Your task to perform on an android device: Open calendar and show me the first week of next month Image 0: 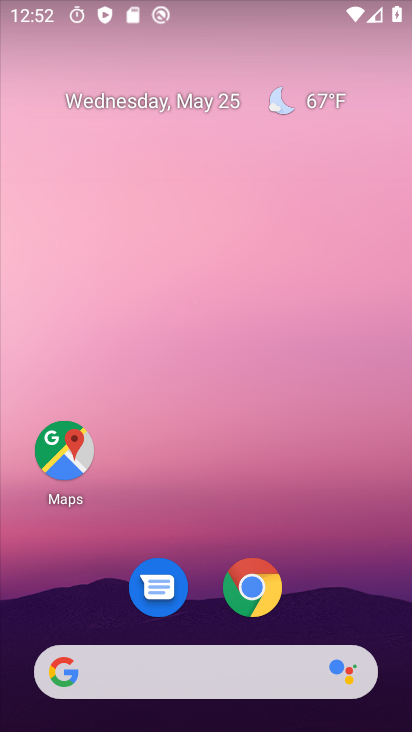
Step 0: drag from (209, 688) to (204, 13)
Your task to perform on an android device: Open calendar and show me the first week of next month Image 1: 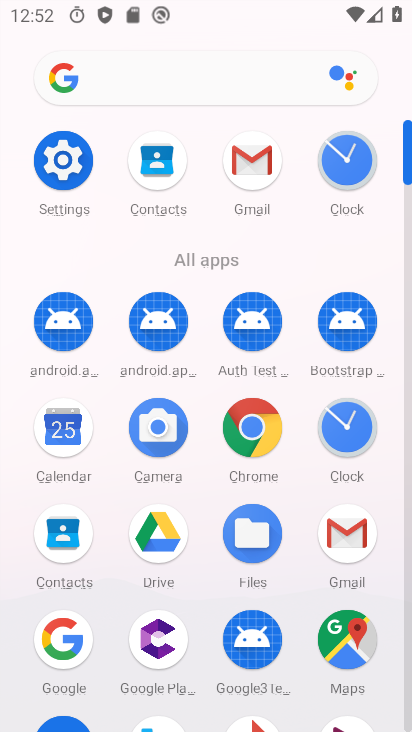
Step 1: click (68, 445)
Your task to perform on an android device: Open calendar and show me the first week of next month Image 2: 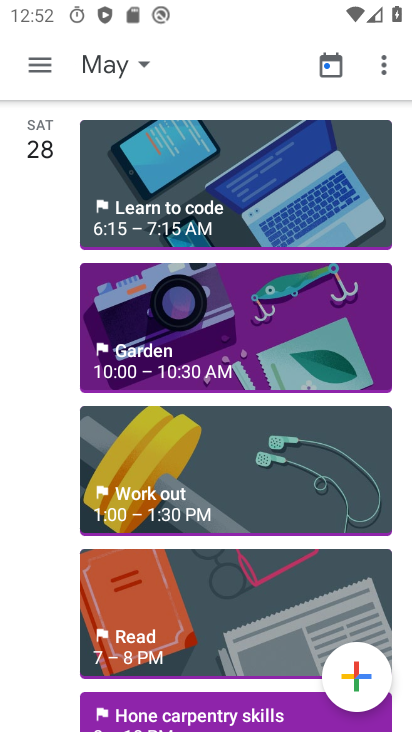
Step 2: click (134, 58)
Your task to perform on an android device: Open calendar and show me the first week of next month Image 3: 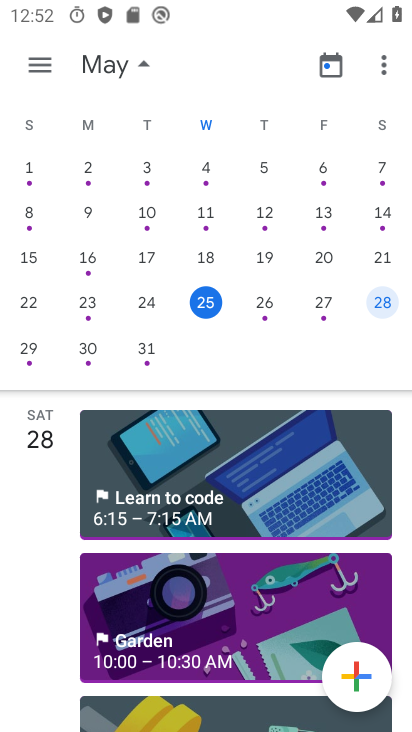
Step 3: drag from (354, 270) to (62, 260)
Your task to perform on an android device: Open calendar and show me the first week of next month Image 4: 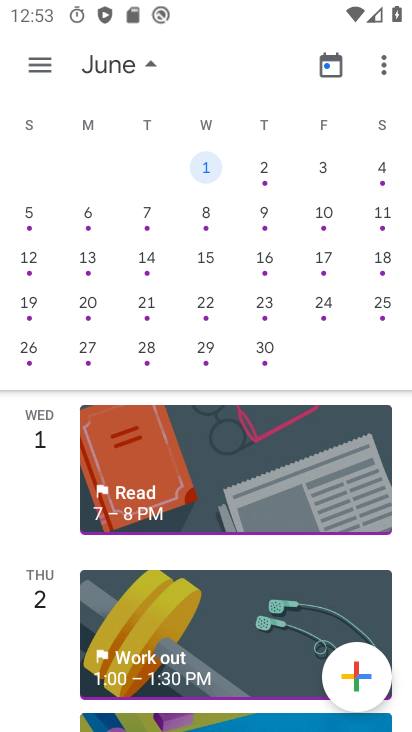
Step 4: click (88, 216)
Your task to perform on an android device: Open calendar and show me the first week of next month Image 5: 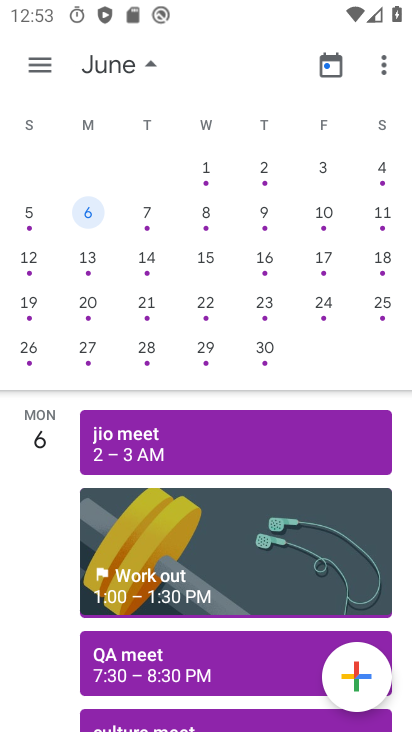
Step 5: click (38, 62)
Your task to perform on an android device: Open calendar and show me the first week of next month Image 6: 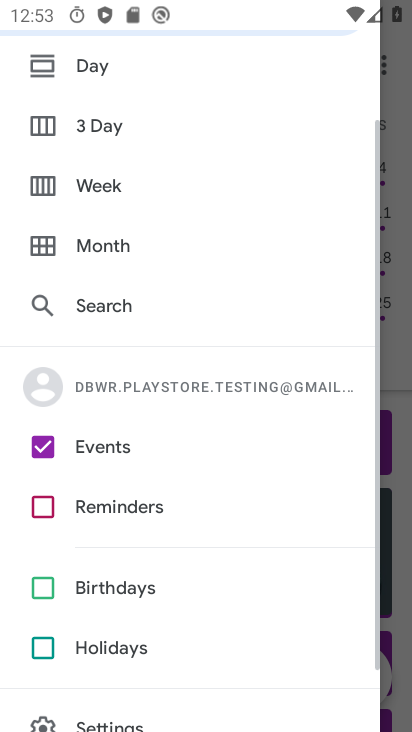
Step 6: click (105, 179)
Your task to perform on an android device: Open calendar and show me the first week of next month Image 7: 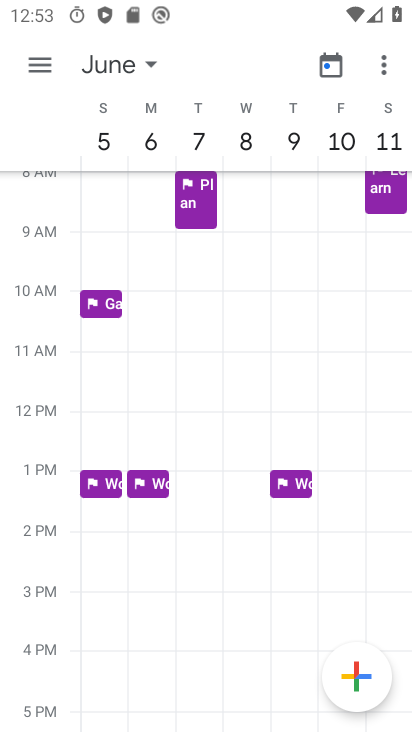
Step 7: task complete